Your task to perform on an android device: What's the weather going to be tomorrow? Image 0: 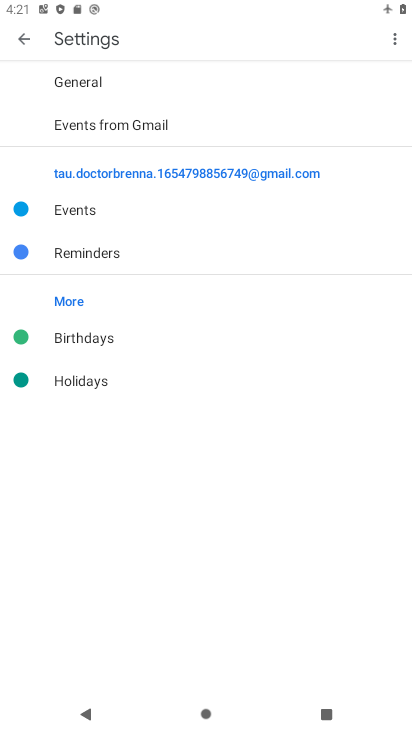
Step 0: press home button
Your task to perform on an android device: What's the weather going to be tomorrow? Image 1: 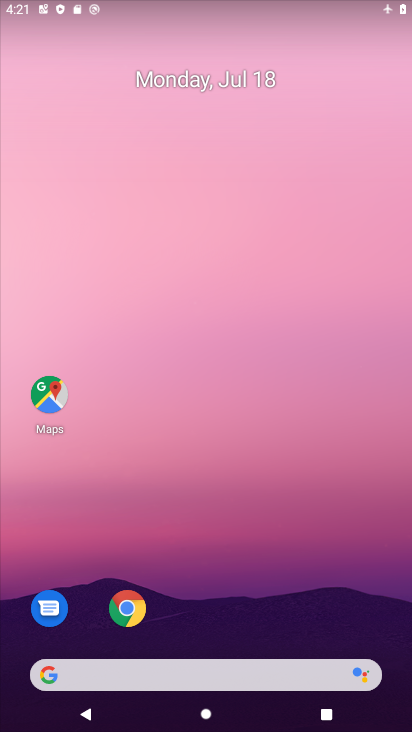
Step 1: drag from (294, 574) to (285, 36)
Your task to perform on an android device: What's the weather going to be tomorrow? Image 2: 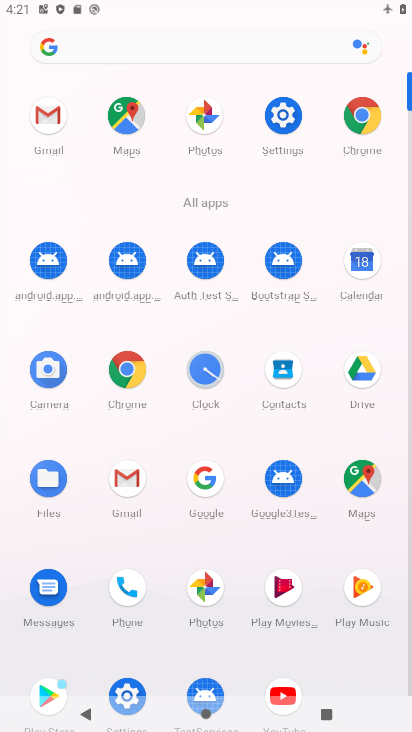
Step 2: click (366, 115)
Your task to perform on an android device: What's the weather going to be tomorrow? Image 3: 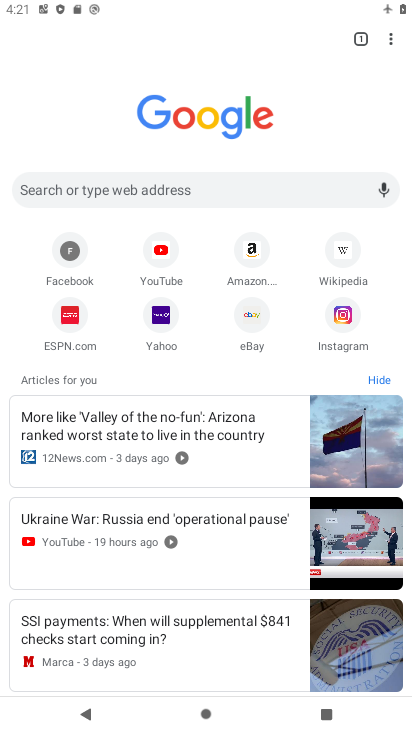
Step 3: click (164, 181)
Your task to perform on an android device: What's the weather going to be tomorrow? Image 4: 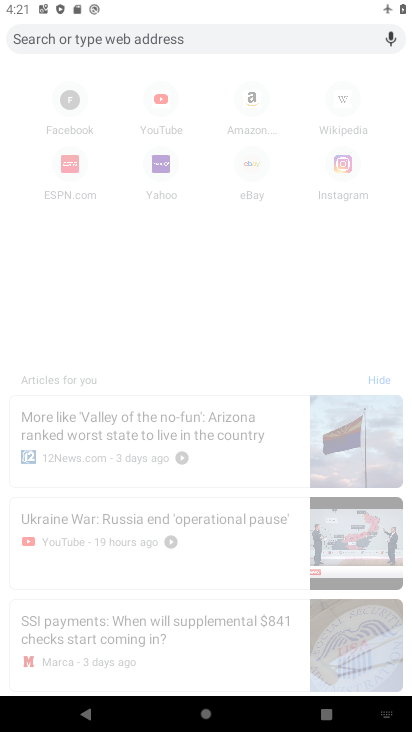
Step 4: type "weather"
Your task to perform on an android device: What's the weather going to be tomorrow? Image 5: 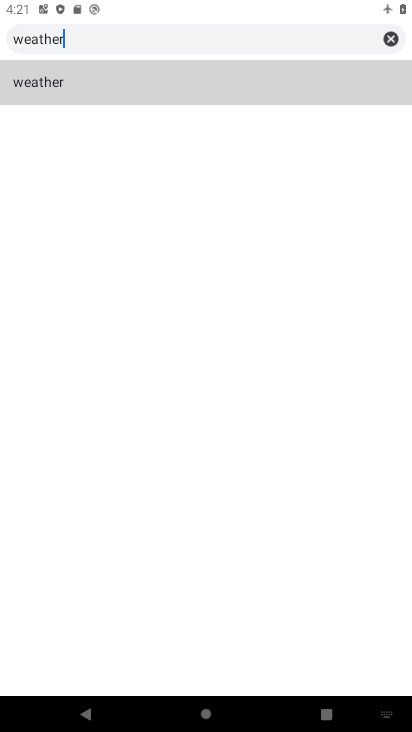
Step 5: click (32, 83)
Your task to perform on an android device: What's the weather going to be tomorrow? Image 6: 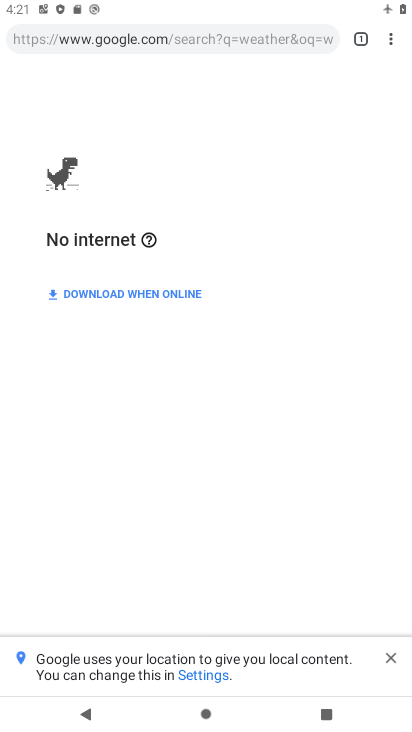
Step 6: task complete